Your task to perform on an android device: Go to internet settings Image 0: 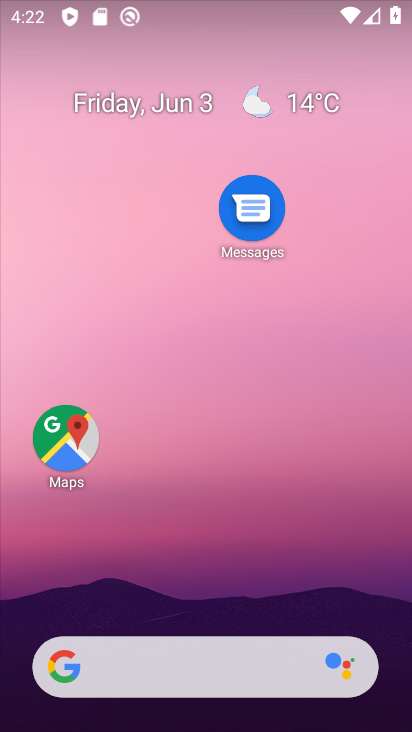
Step 0: drag from (229, 560) to (310, 194)
Your task to perform on an android device: Go to internet settings Image 1: 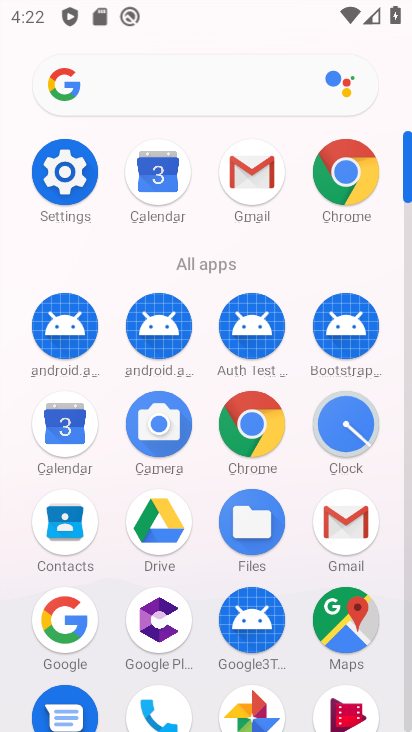
Step 1: click (61, 169)
Your task to perform on an android device: Go to internet settings Image 2: 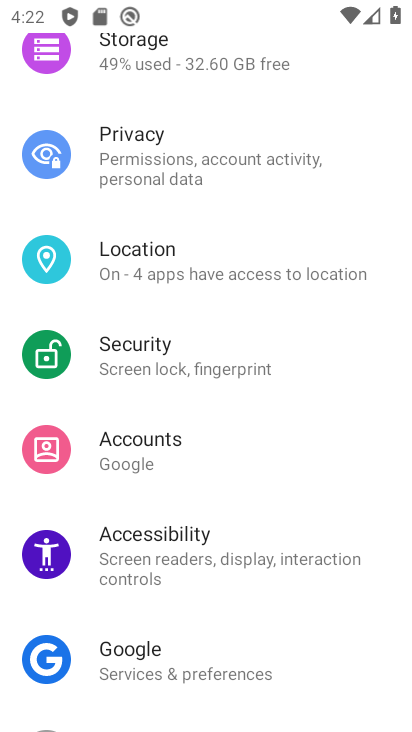
Step 2: drag from (160, 205) to (4, 636)
Your task to perform on an android device: Go to internet settings Image 3: 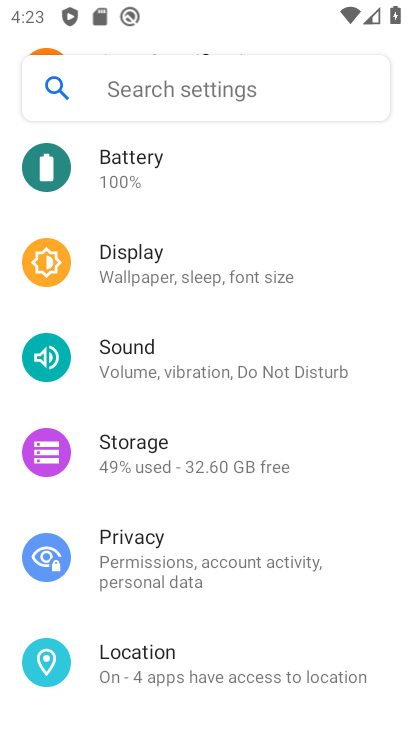
Step 3: drag from (172, 257) to (158, 444)
Your task to perform on an android device: Go to internet settings Image 4: 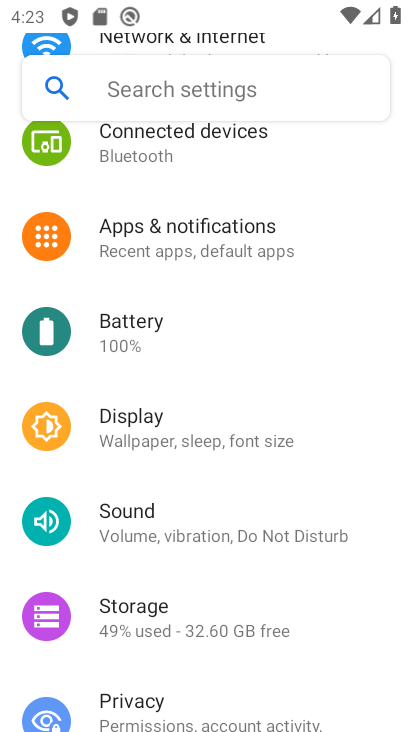
Step 4: drag from (174, 234) to (180, 485)
Your task to perform on an android device: Go to internet settings Image 5: 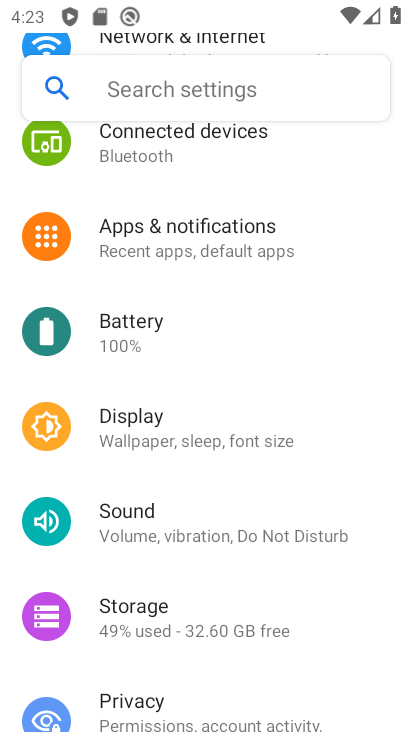
Step 5: drag from (177, 301) to (188, 593)
Your task to perform on an android device: Go to internet settings Image 6: 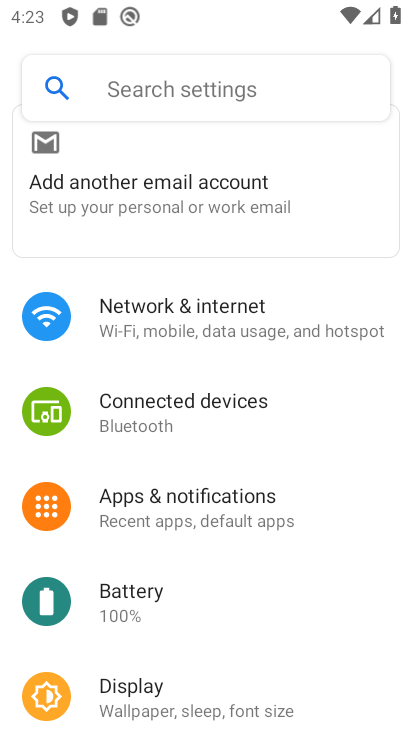
Step 6: click (163, 324)
Your task to perform on an android device: Go to internet settings Image 7: 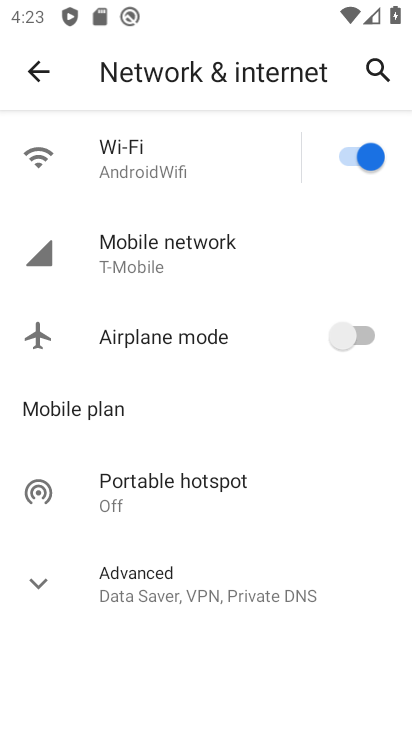
Step 7: task complete